Your task to perform on an android device: turn on sleep mode Image 0: 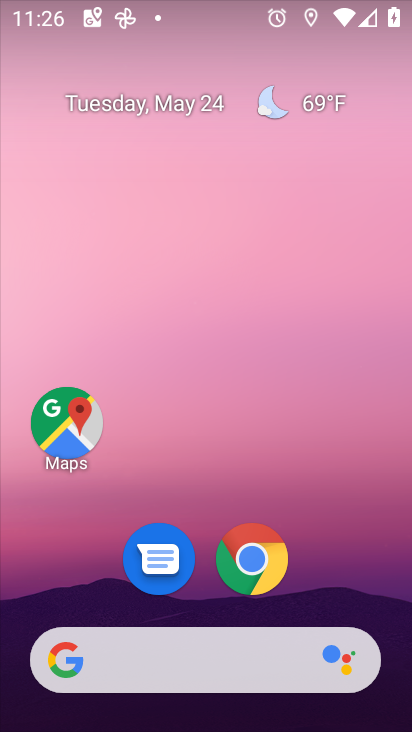
Step 0: drag from (404, 628) to (351, 108)
Your task to perform on an android device: turn on sleep mode Image 1: 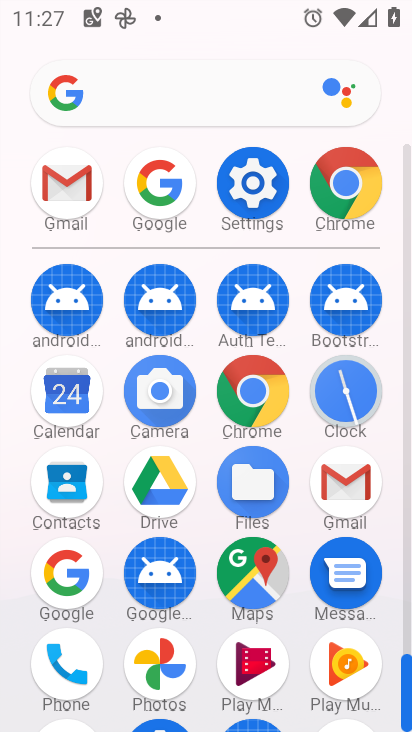
Step 1: click (263, 191)
Your task to perform on an android device: turn on sleep mode Image 2: 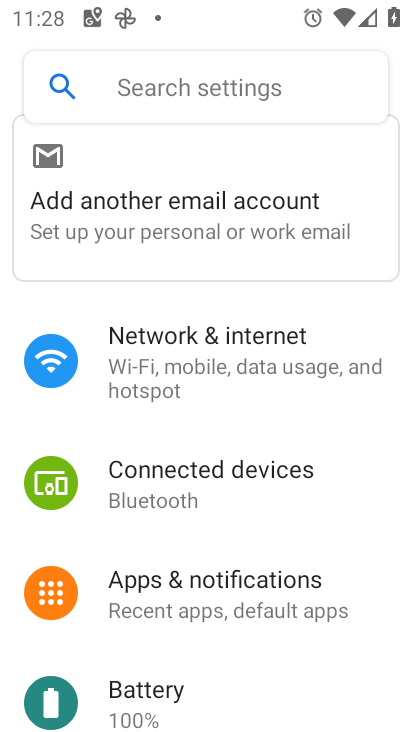
Step 2: task complete